Your task to perform on an android device: Search for alienware area 51 on walmart.com, select the first entry, and add it to the cart. Image 0: 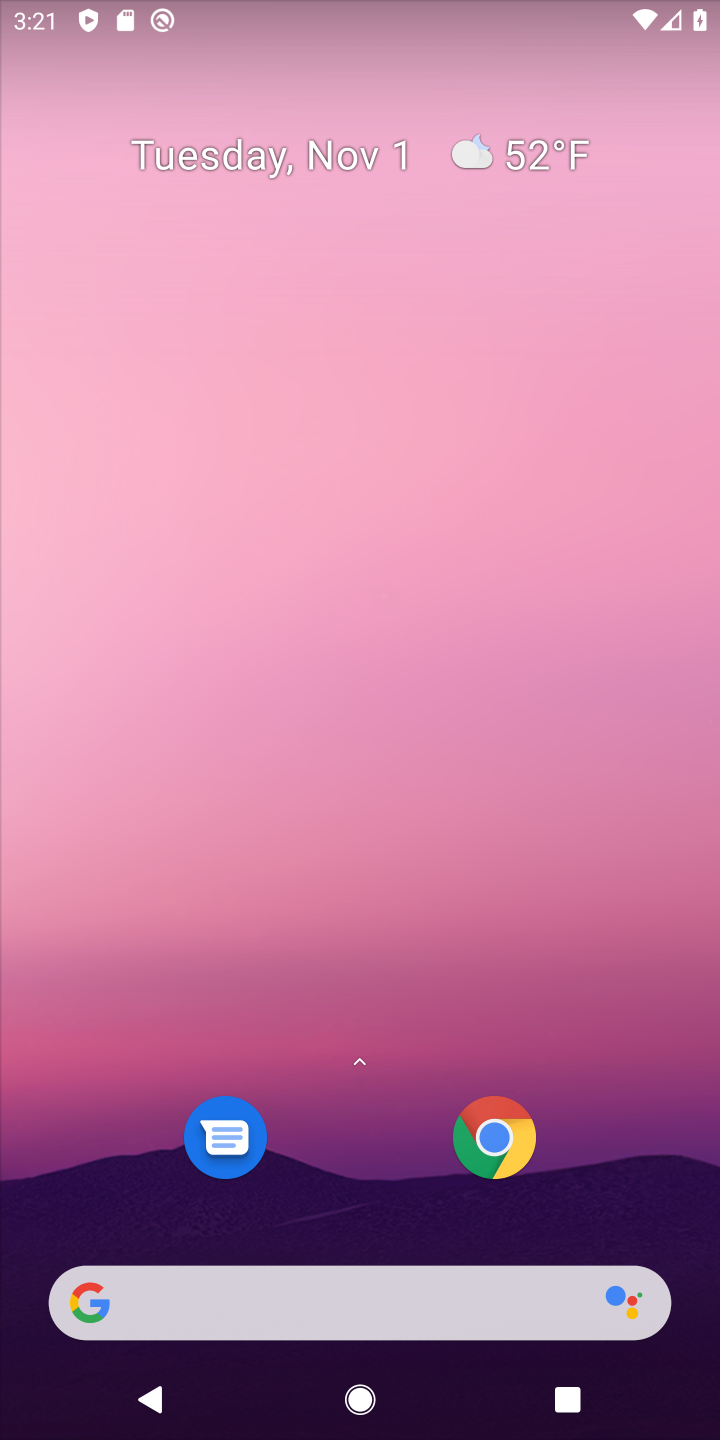
Step 0: press home button
Your task to perform on an android device: Search for alienware area 51 on walmart.com, select the first entry, and add it to the cart. Image 1: 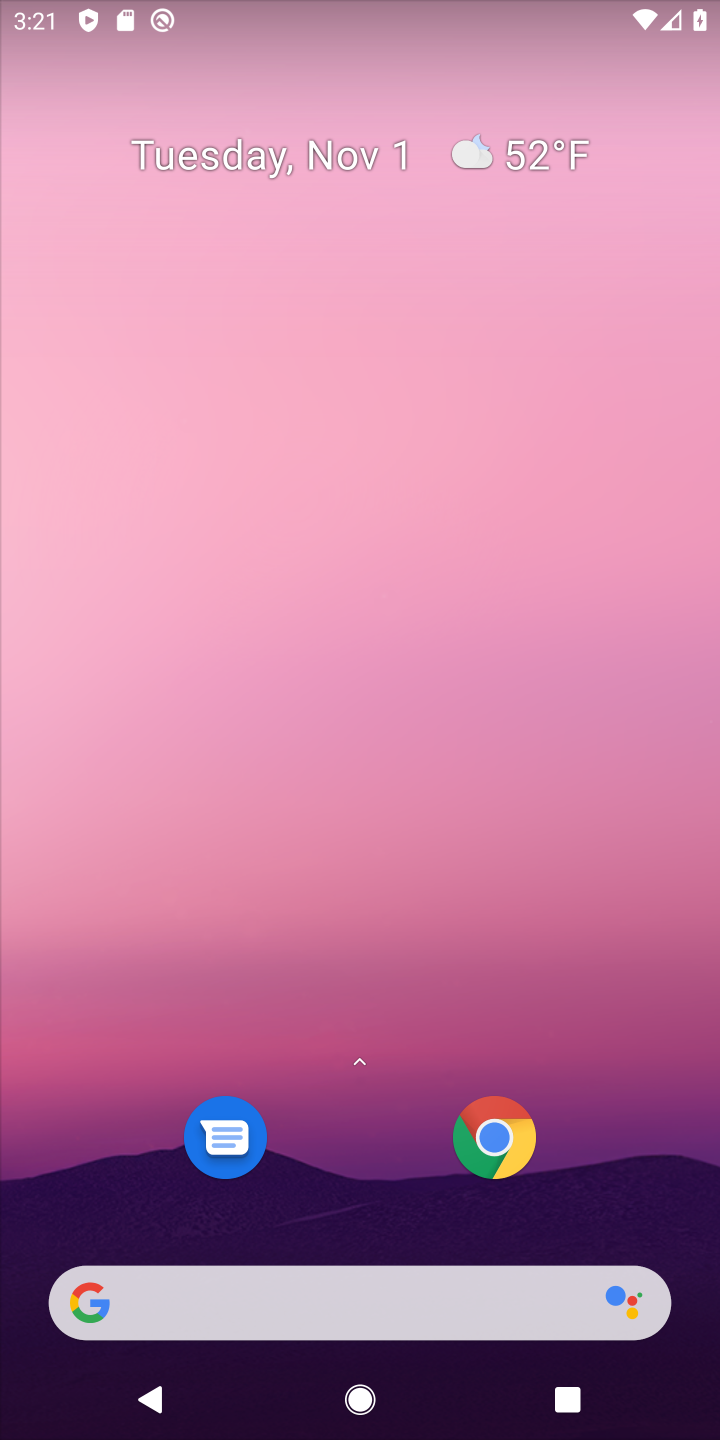
Step 1: click (434, 1322)
Your task to perform on an android device: Search for alienware area 51 on walmart.com, select the first entry, and add it to the cart. Image 2: 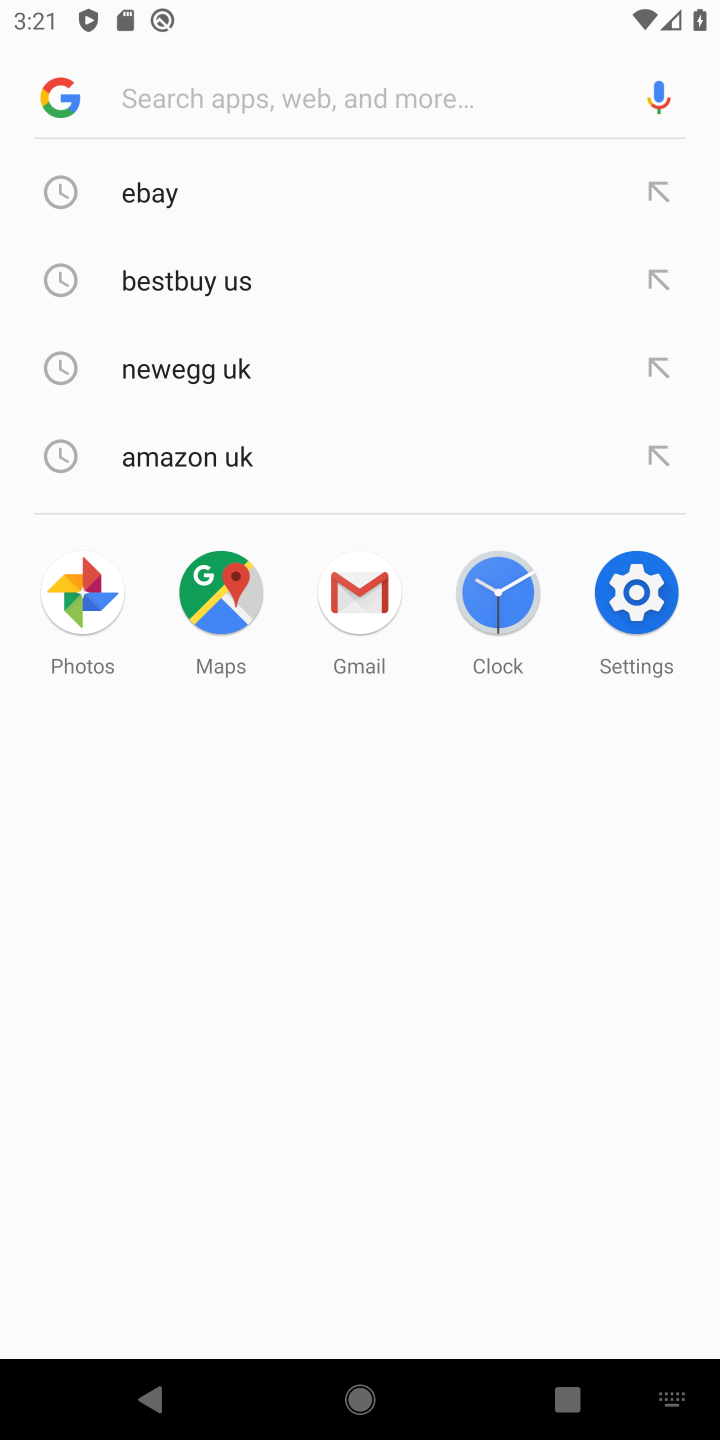
Step 2: type "walmart"
Your task to perform on an android device: Search for alienware area 51 on walmart.com, select the first entry, and add it to the cart. Image 3: 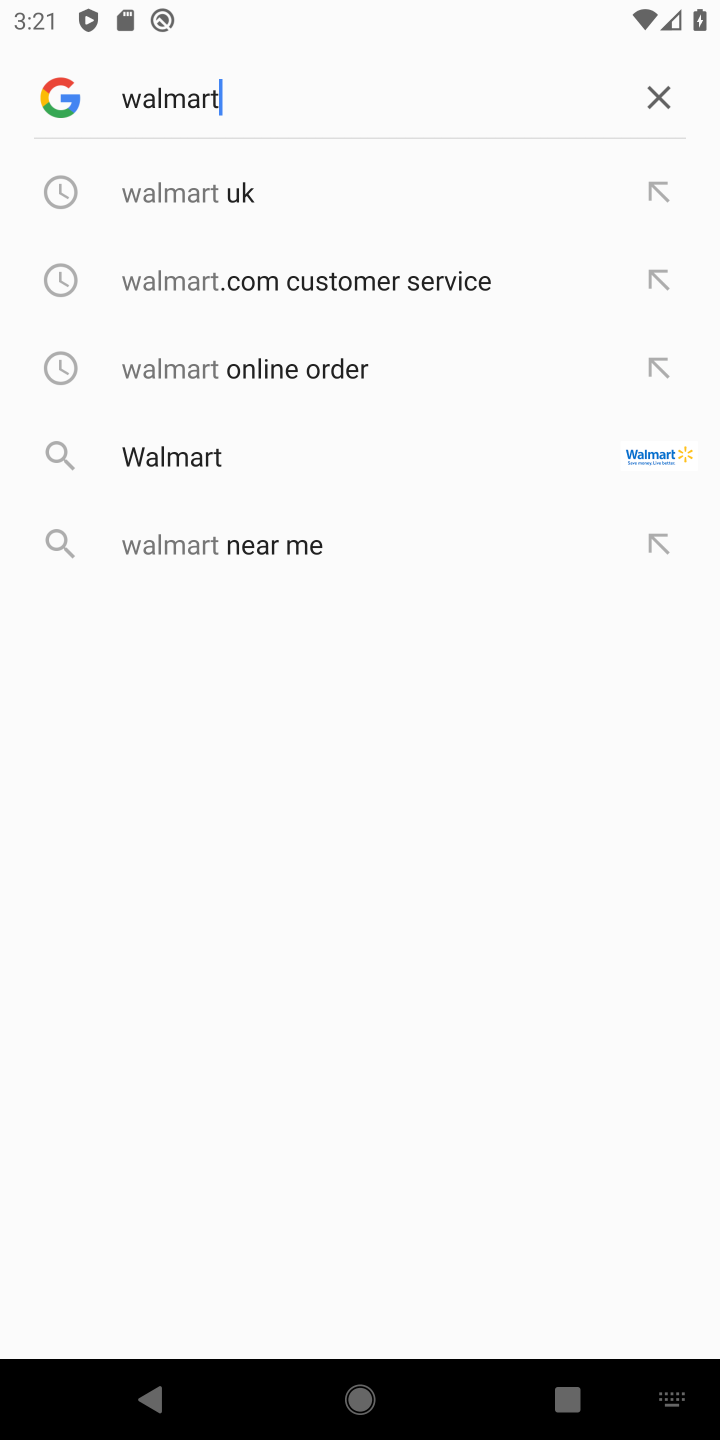
Step 3: click (259, 226)
Your task to perform on an android device: Search for alienware area 51 on walmart.com, select the first entry, and add it to the cart. Image 4: 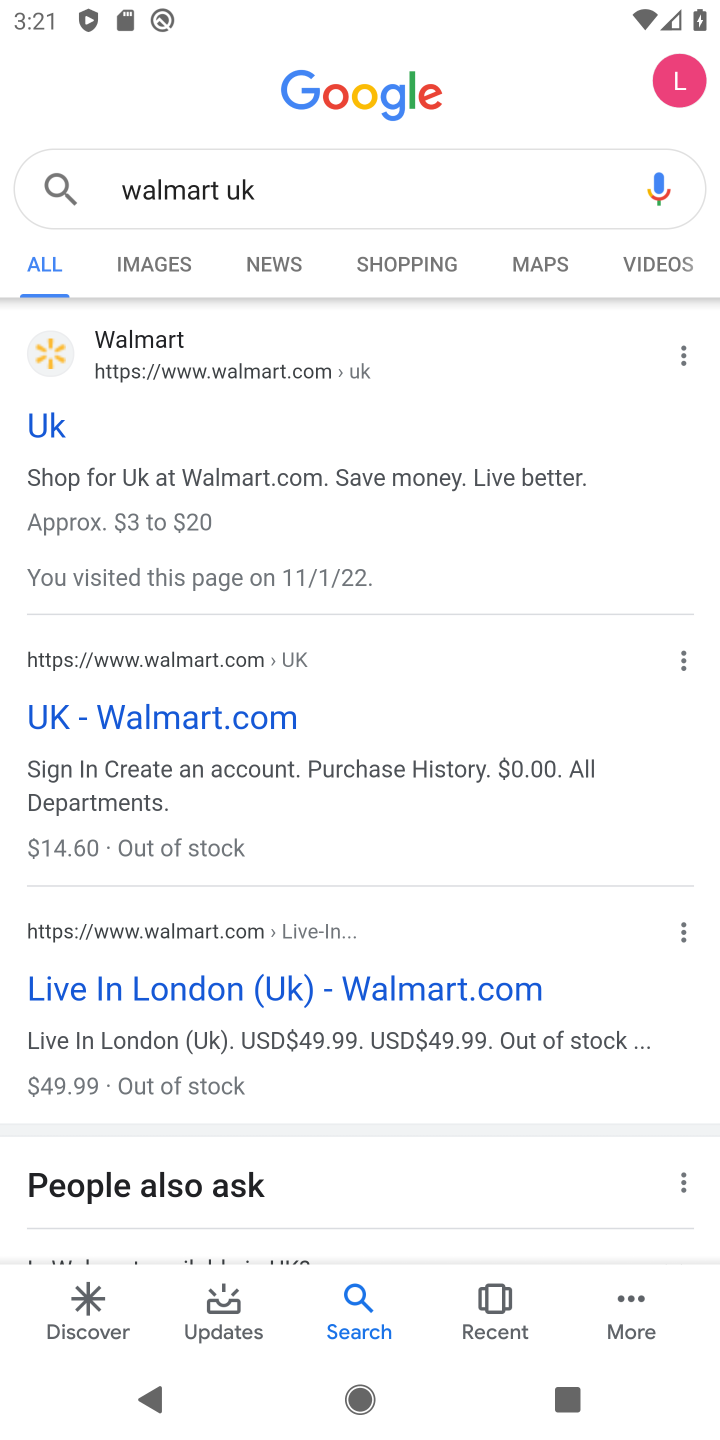
Step 4: click (51, 456)
Your task to perform on an android device: Search for alienware area 51 on walmart.com, select the first entry, and add it to the cart. Image 5: 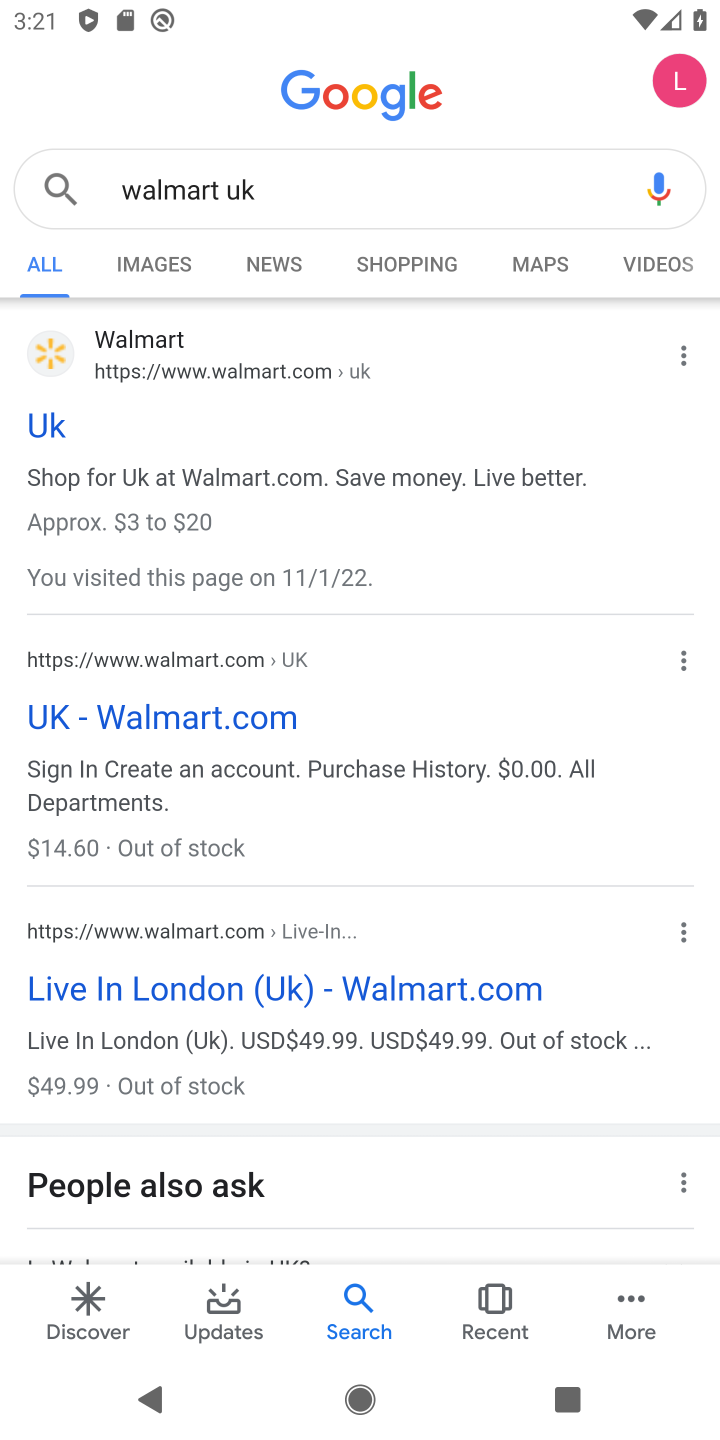
Step 5: click (154, 379)
Your task to perform on an android device: Search for alienware area 51 on walmart.com, select the first entry, and add it to the cart. Image 6: 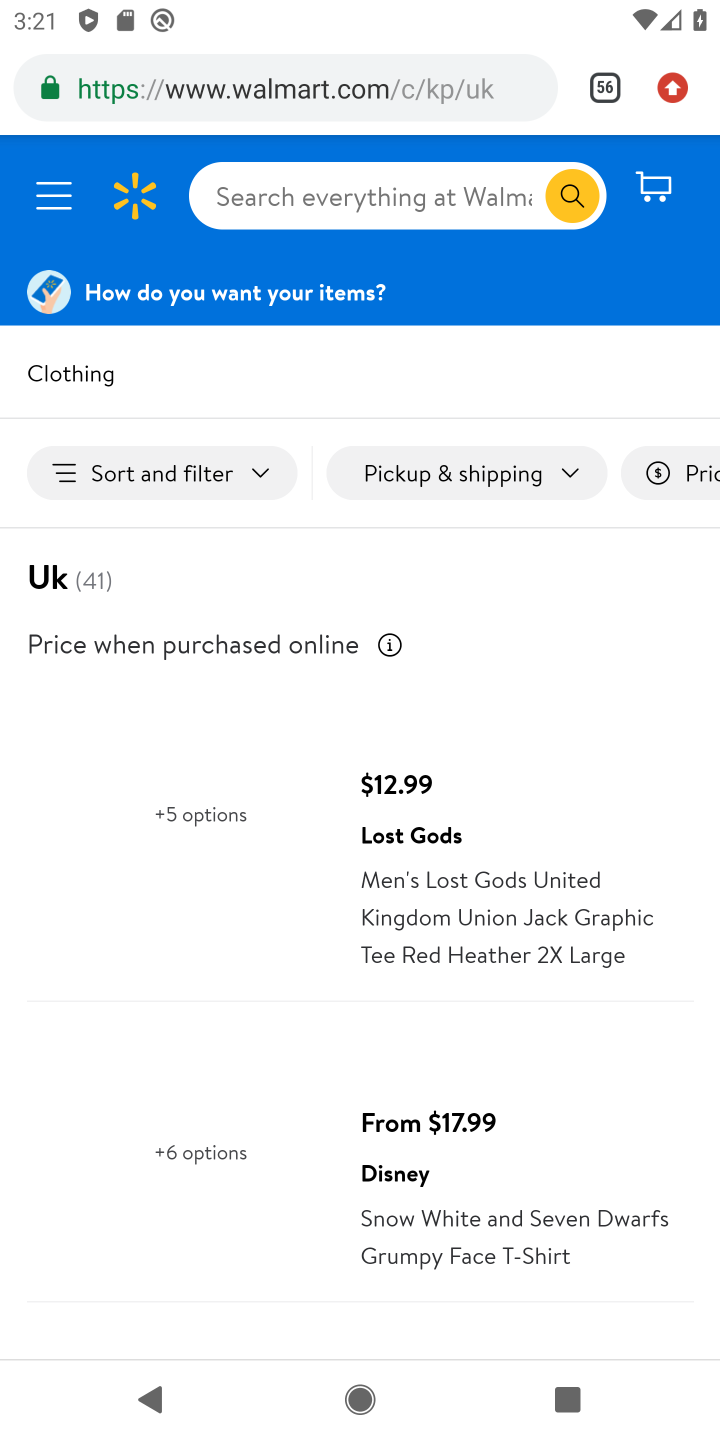
Step 6: click (450, 208)
Your task to perform on an android device: Search for alienware area 51 on walmart.com, select the first entry, and add it to the cart. Image 7: 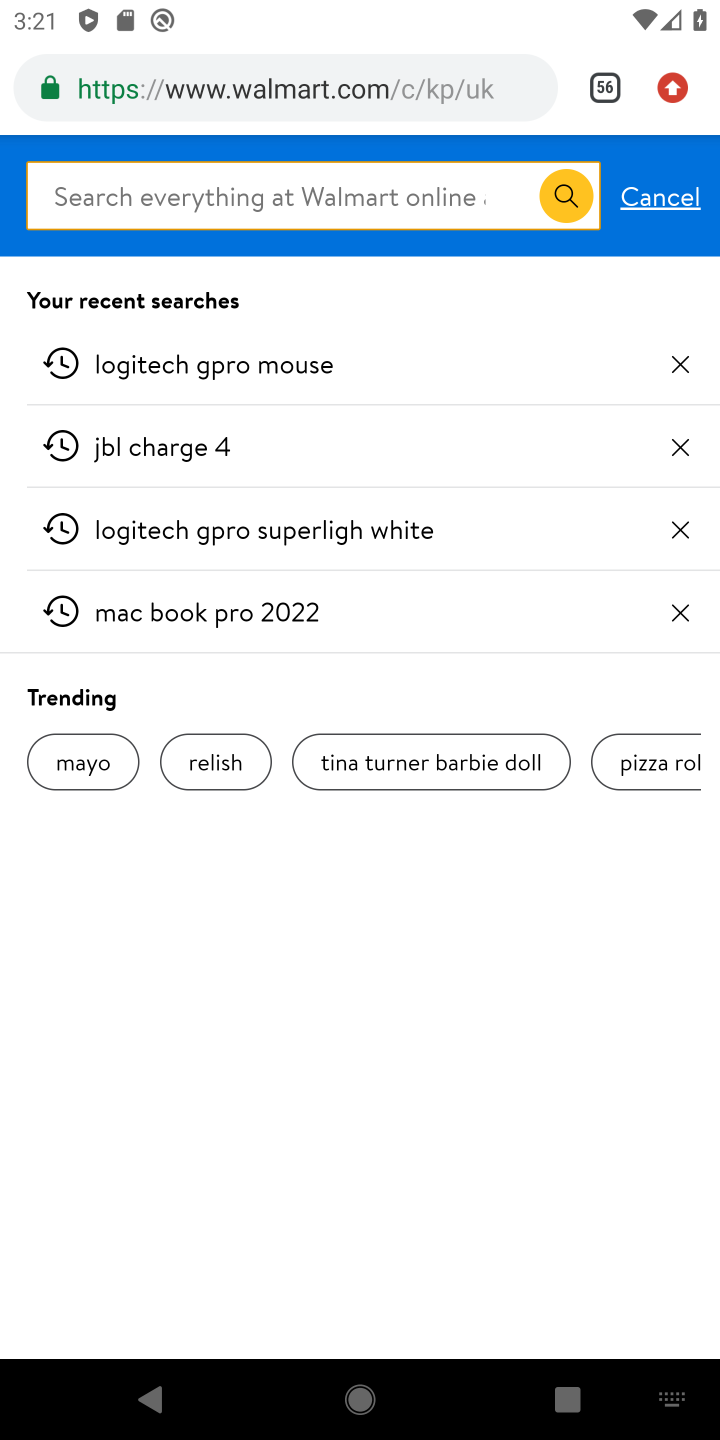
Step 7: type "alienware 51"
Your task to perform on an android device: Search for alienware area 51 on walmart.com, select the first entry, and add it to the cart. Image 8: 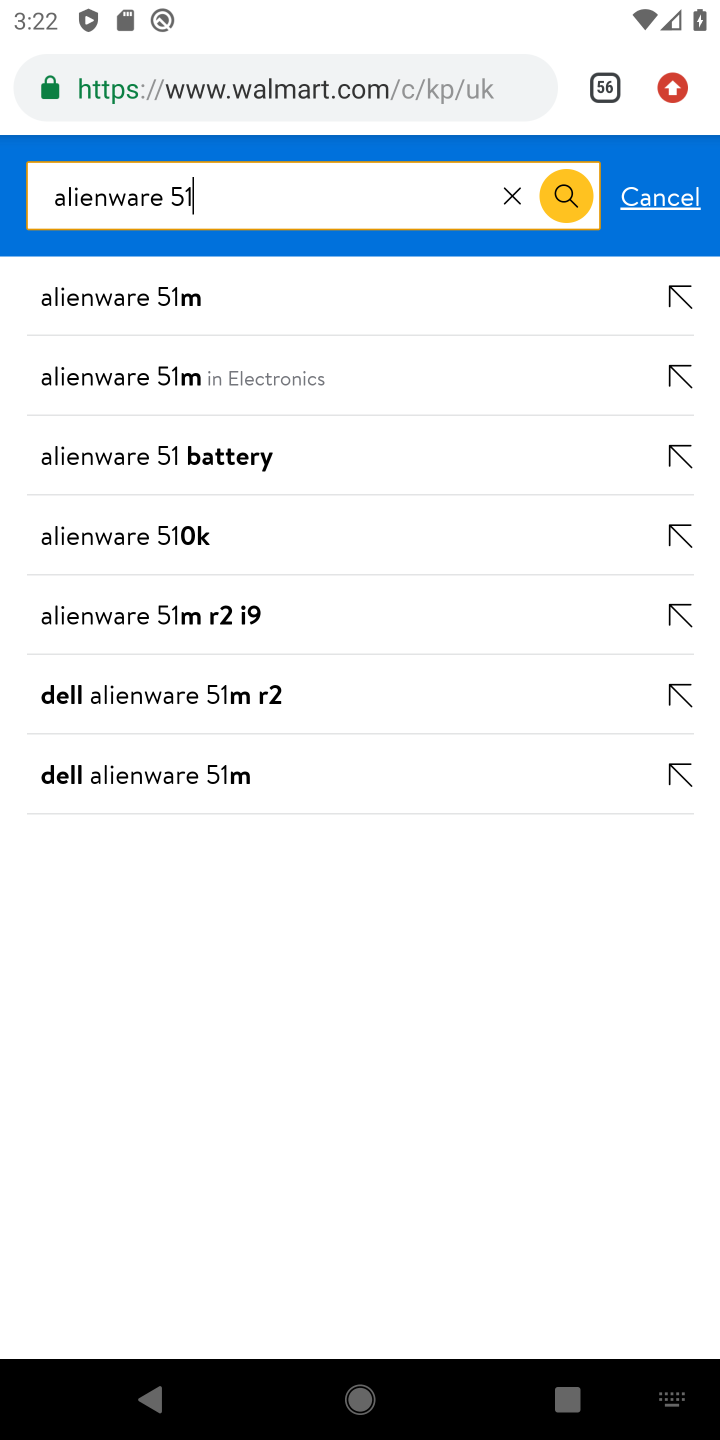
Step 8: click (144, 330)
Your task to perform on an android device: Search for alienware area 51 on walmart.com, select the first entry, and add it to the cart. Image 9: 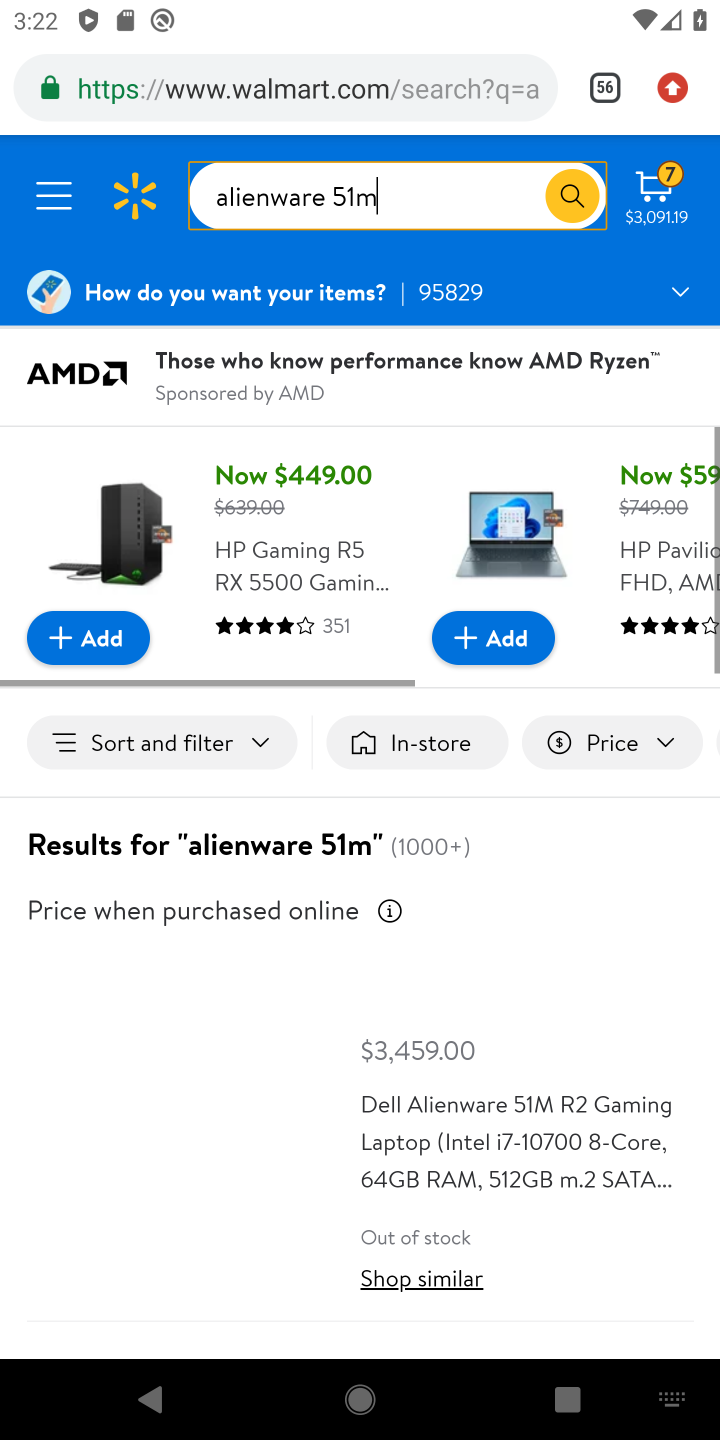
Step 9: click (467, 1331)
Your task to perform on an android device: Search for alienware area 51 on walmart.com, select the first entry, and add it to the cart. Image 10: 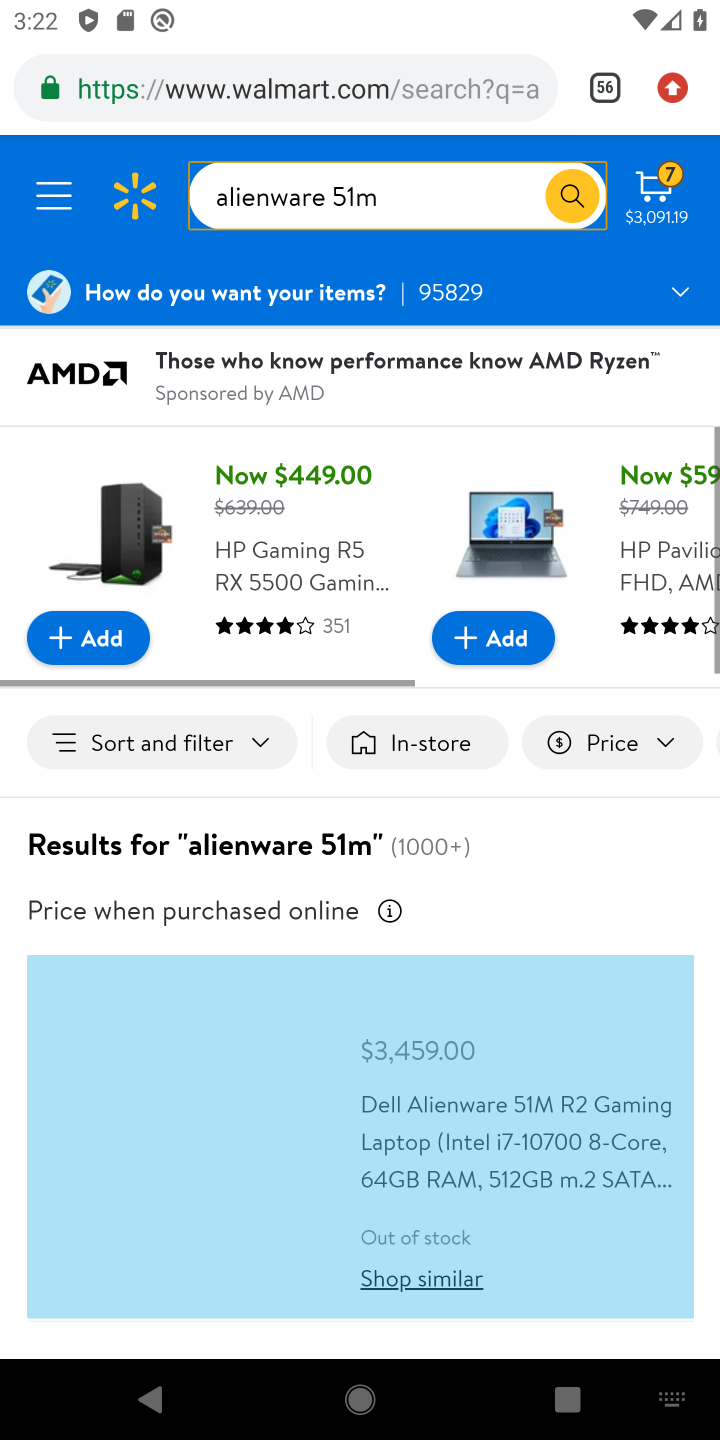
Step 10: task complete